Your task to perform on an android device: Open Android settings Image 0: 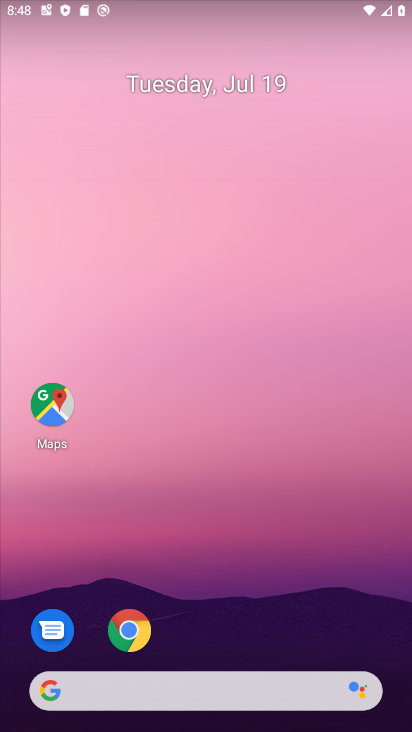
Step 0: drag from (182, 638) to (234, 83)
Your task to perform on an android device: Open Android settings Image 1: 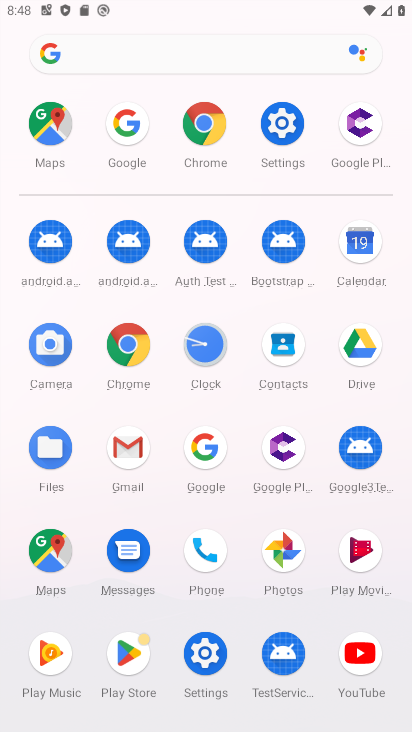
Step 1: click (282, 124)
Your task to perform on an android device: Open Android settings Image 2: 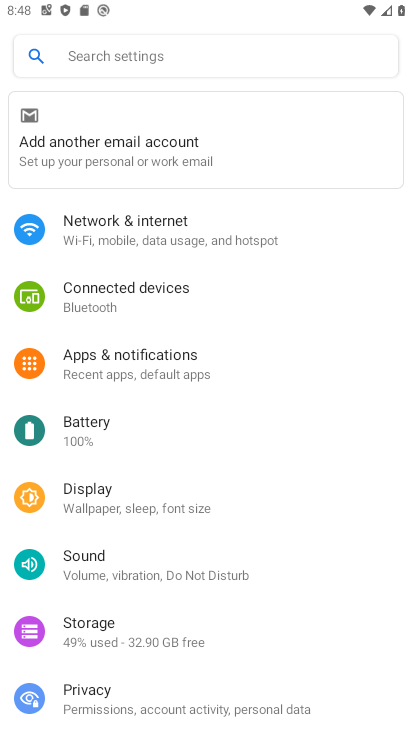
Step 2: task complete